Your task to perform on an android device: Do I have any events tomorrow? Image 0: 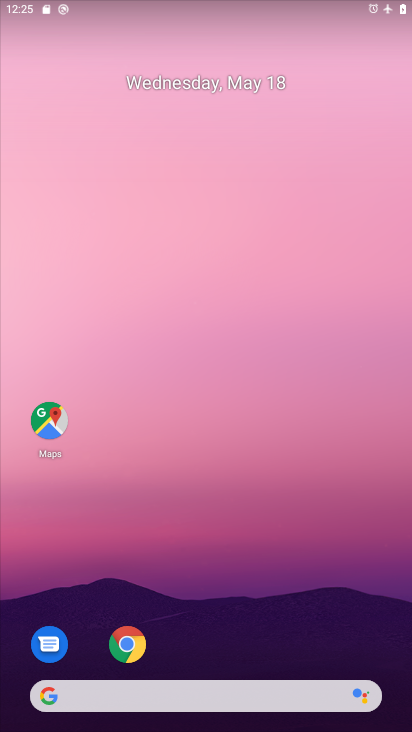
Step 0: press home button
Your task to perform on an android device: Do I have any events tomorrow? Image 1: 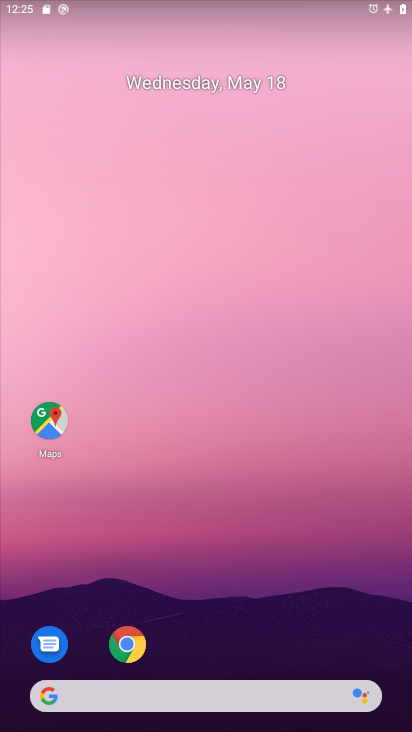
Step 1: drag from (204, 639) to (196, 260)
Your task to perform on an android device: Do I have any events tomorrow? Image 2: 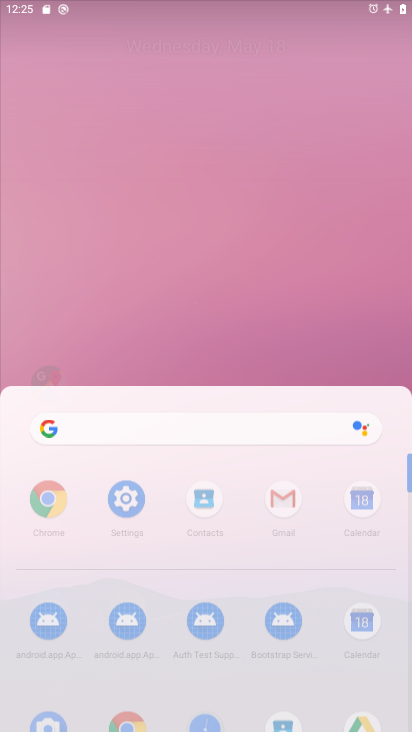
Step 2: click (228, 77)
Your task to perform on an android device: Do I have any events tomorrow? Image 3: 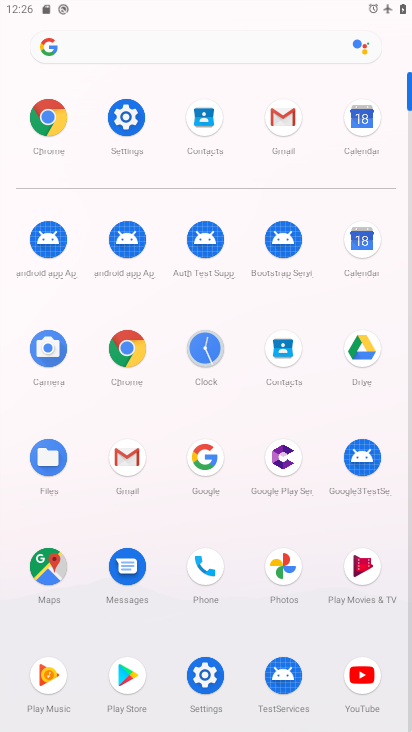
Step 3: click (359, 238)
Your task to perform on an android device: Do I have any events tomorrow? Image 4: 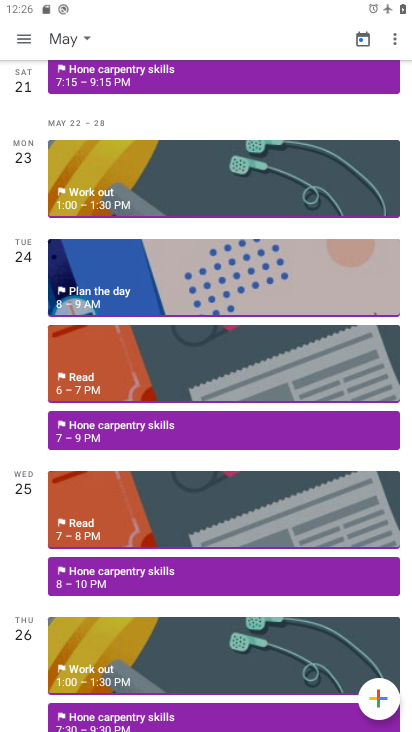
Step 4: drag from (32, 101) to (27, 517)
Your task to perform on an android device: Do I have any events tomorrow? Image 5: 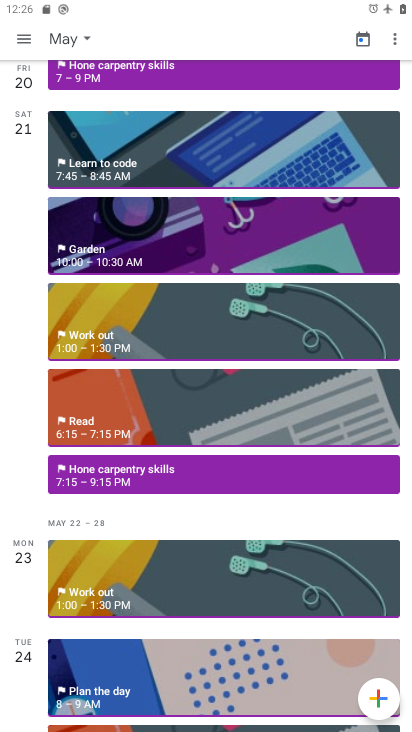
Step 5: drag from (25, 138) to (34, 384)
Your task to perform on an android device: Do I have any events tomorrow? Image 6: 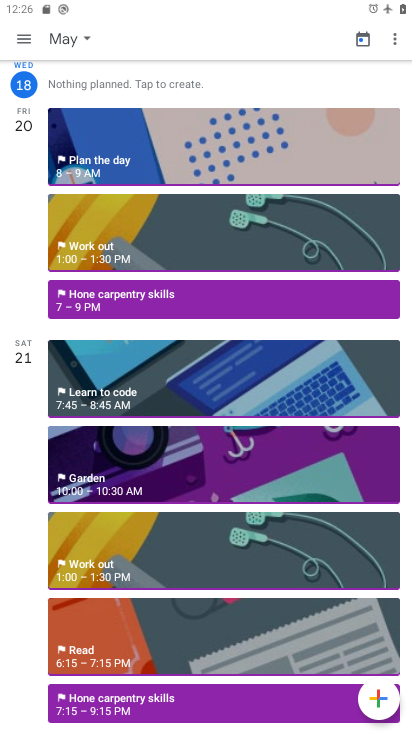
Step 6: click (19, 82)
Your task to perform on an android device: Do I have any events tomorrow? Image 7: 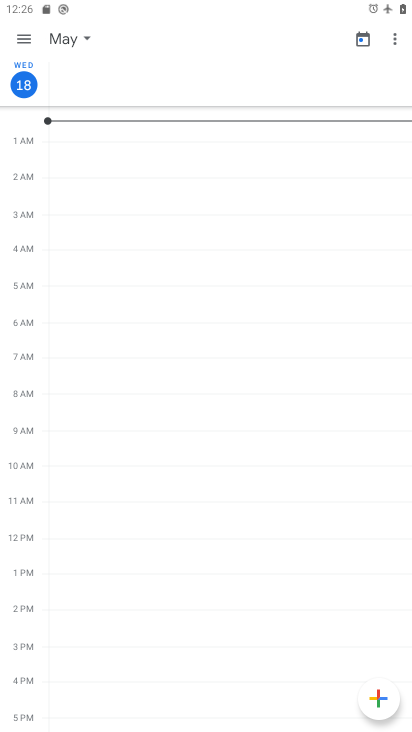
Step 7: click (68, 27)
Your task to perform on an android device: Do I have any events tomorrow? Image 8: 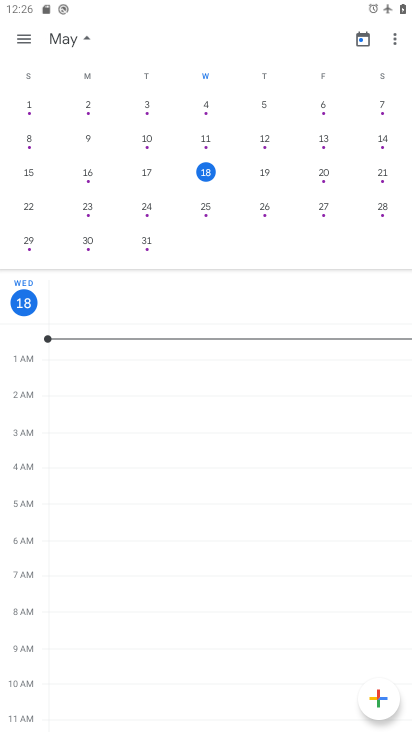
Step 8: click (267, 166)
Your task to perform on an android device: Do I have any events tomorrow? Image 9: 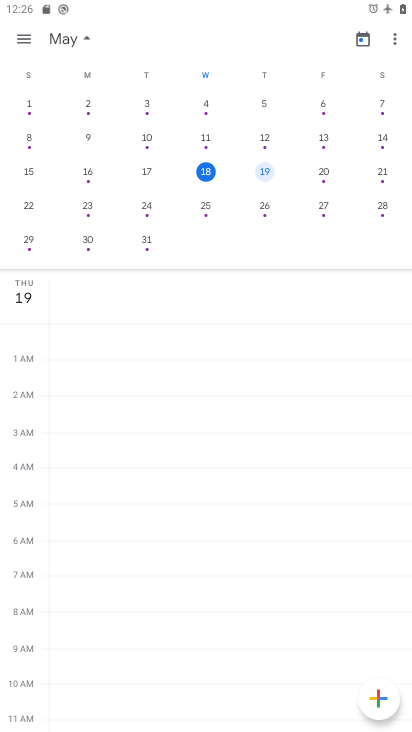
Step 9: click (84, 25)
Your task to perform on an android device: Do I have any events tomorrow? Image 10: 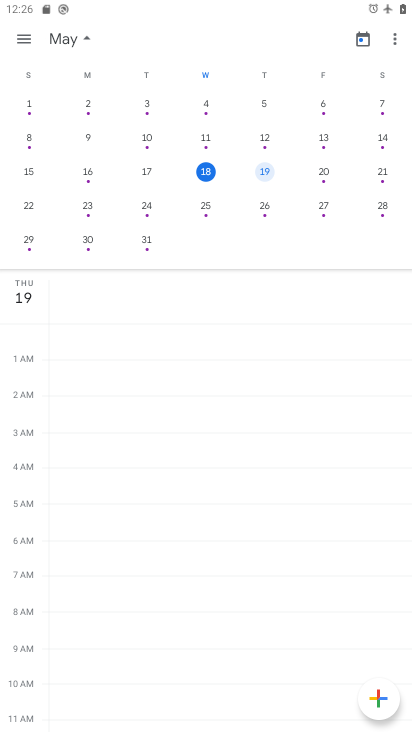
Step 10: click (80, 33)
Your task to perform on an android device: Do I have any events tomorrow? Image 11: 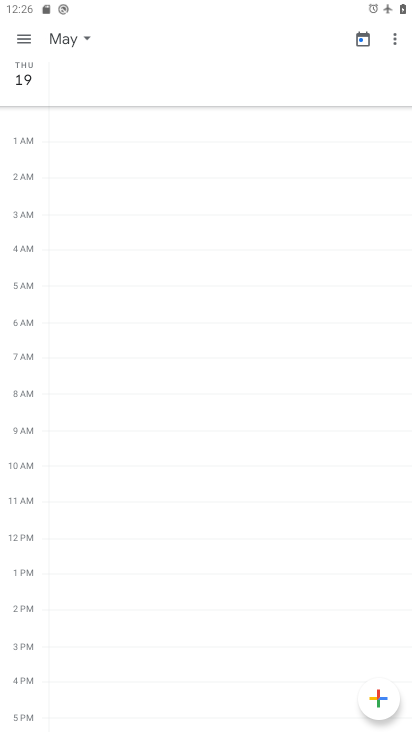
Step 11: task complete